Your task to perform on an android device: change the clock display to analog Image 0: 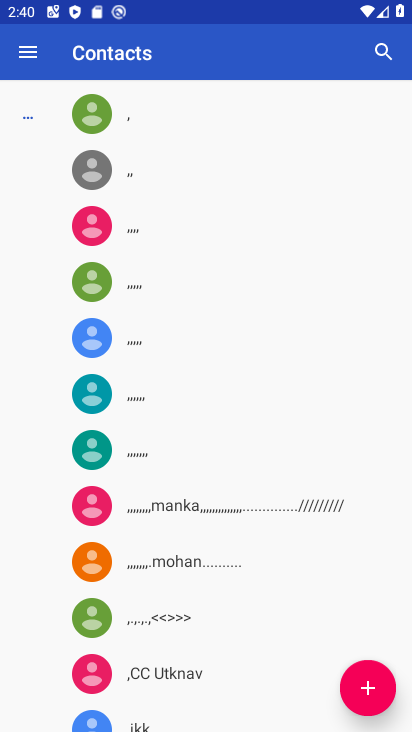
Step 0: press home button
Your task to perform on an android device: change the clock display to analog Image 1: 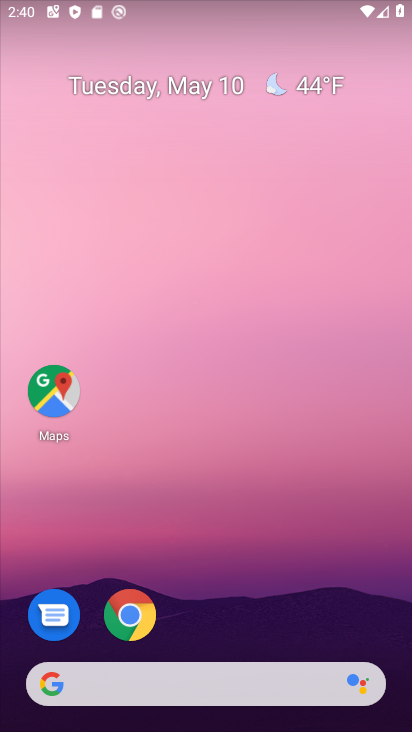
Step 1: click (274, 49)
Your task to perform on an android device: change the clock display to analog Image 2: 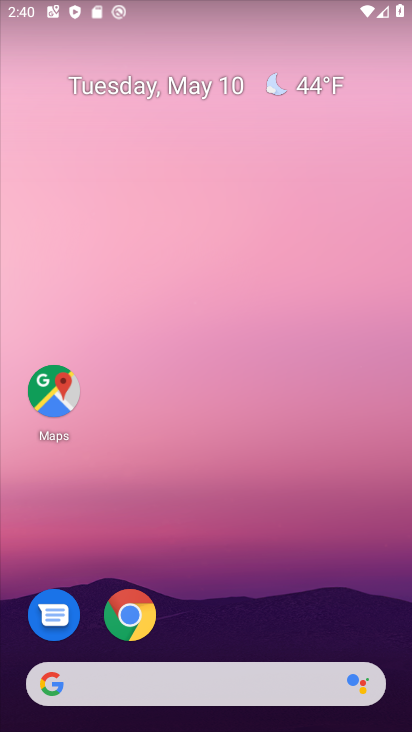
Step 2: drag from (252, 473) to (278, 31)
Your task to perform on an android device: change the clock display to analog Image 3: 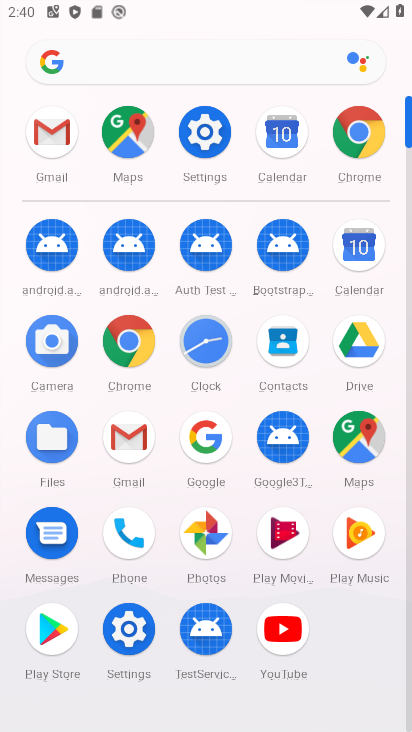
Step 3: click (230, 340)
Your task to perform on an android device: change the clock display to analog Image 4: 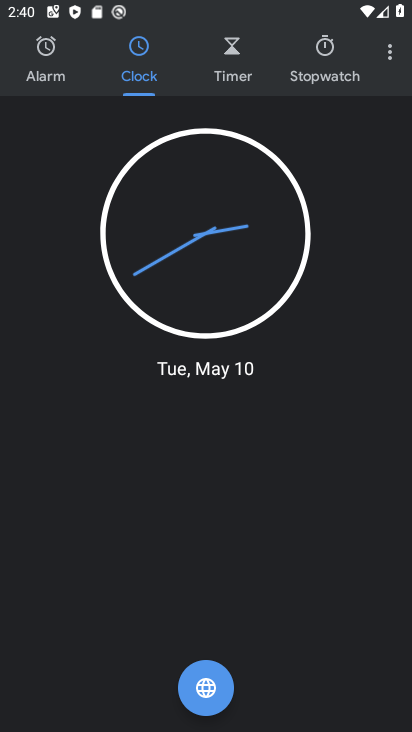
Step 4: click (394, 52)
Your task to perform on an android device: change the clock display to analog Image 5: 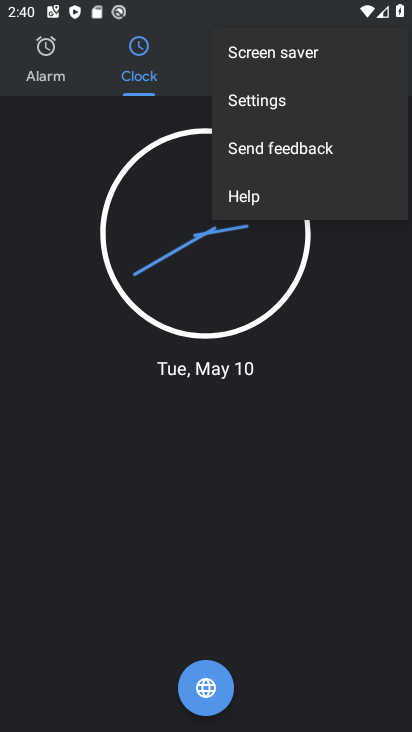
Step 5: click (344, 91)
Your task to perform on an android device: change the clock display to analog Image 6: 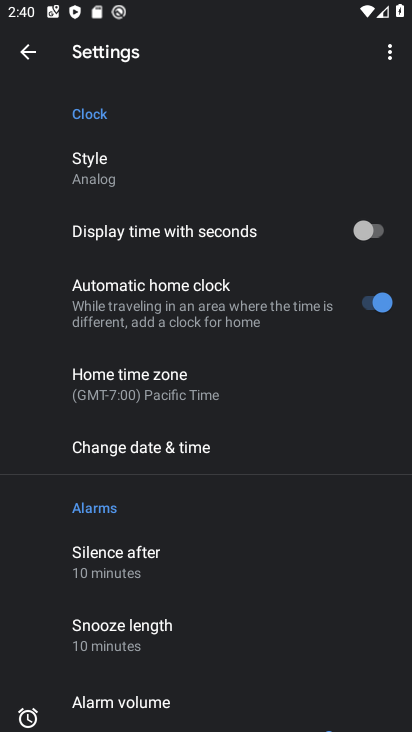
Step 6: click (178, 166)
Your task to perform on an android device: change the clock display to analog Image 7: 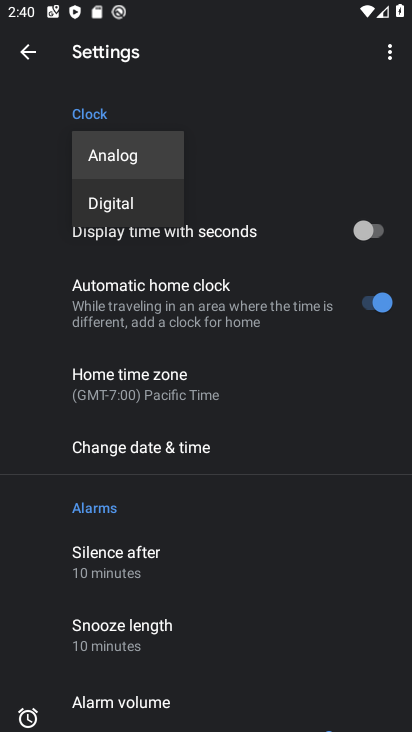
Step 7: click (145, 170)
Your task to perform on an android device: change the clock display to analog Image 8: 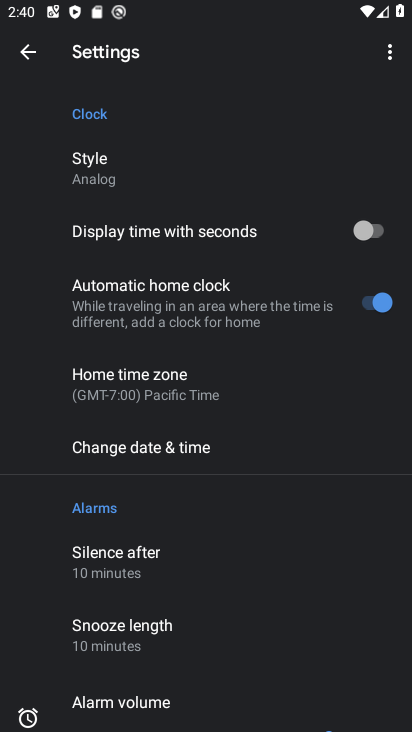
Step 8: task complete